Your task to perform on an android device: toggle pop-ups in chrome Image 0: 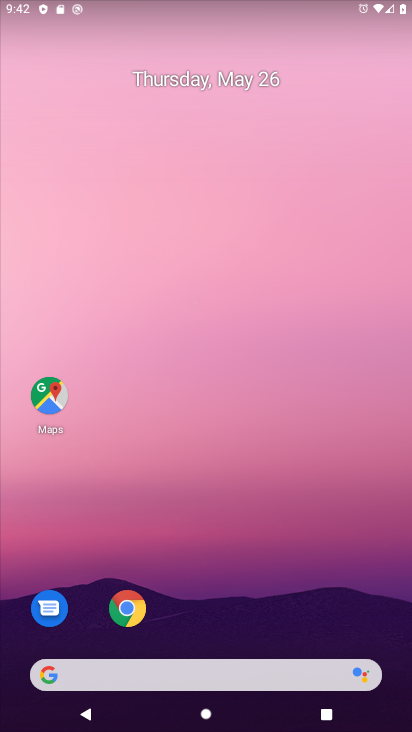
Step 0: click (134, 606)
Your task to perform on an android device: toggle pop-ups in chrome Image 1: 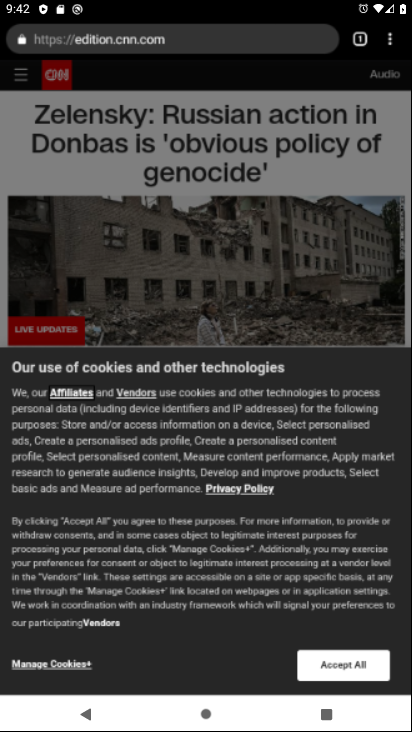
Step 1: click (393, 42)
Your task to perform on an android device: toggle pop-ups in chrome Image 2: 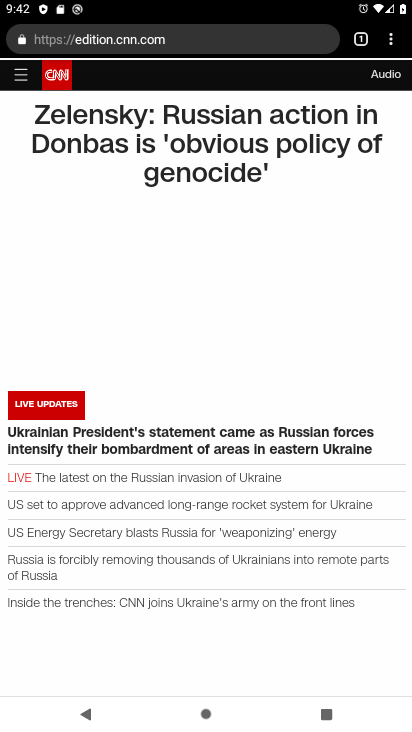
Step 2: click (388, 38)
Your task to perform on an android device: toggle pop-ups in chrome Image 3: 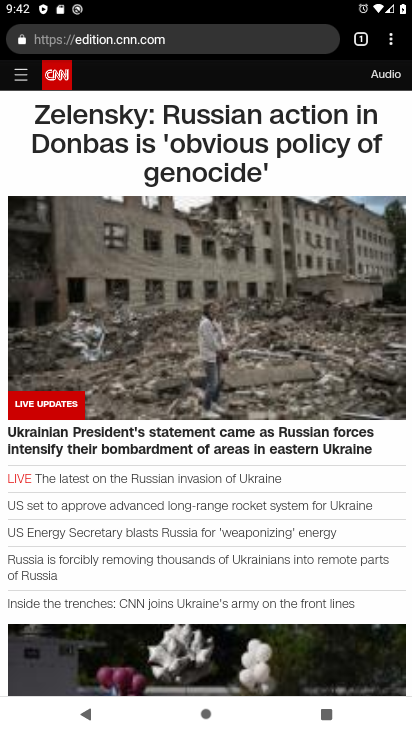
Step 3: click (389, 36)
Your task to perform on an android device: toggle pop-ups in chrome Image 4: 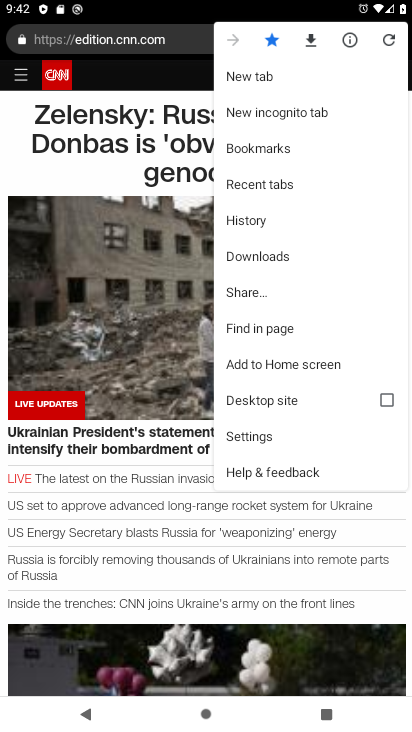
Step 4: click (257, 429)
Your task to perform on an android device: toggle pop-ups in chrome Image 5: 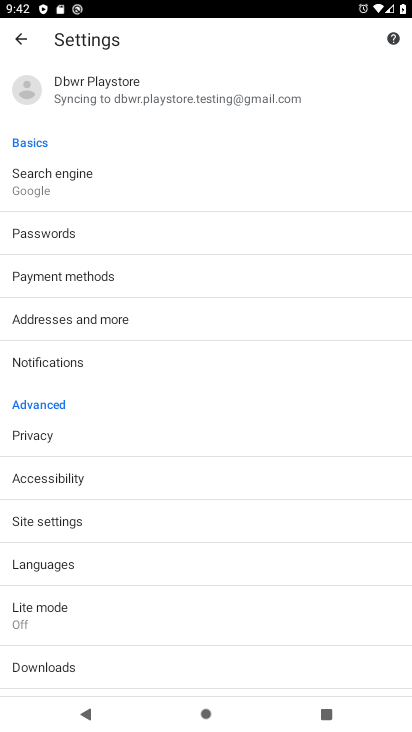
Step 5: click (95, 527)
Your task to perform on an android device: toggle pop-ups in chrome Image 6: 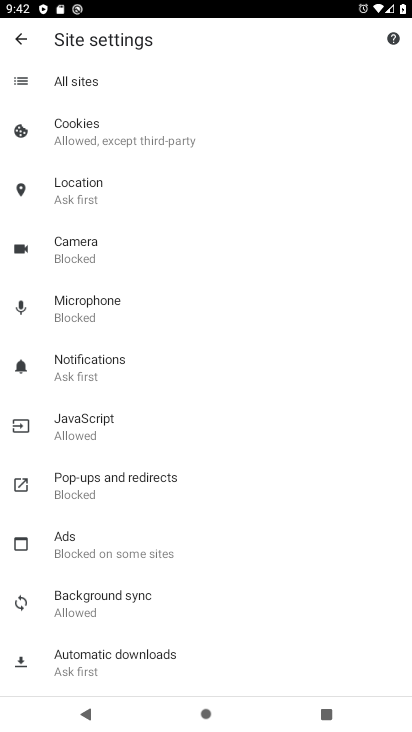
Step 6: click (140, 491)
Your task to perform on an android device: toggle pop-ups in chrome Image 7: 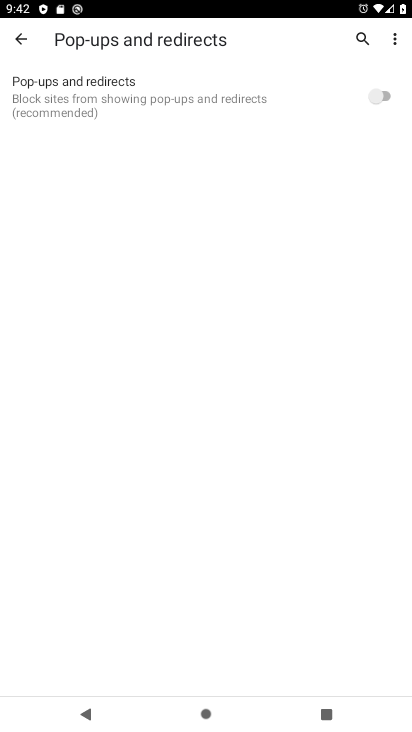
Step 7: click (391, 95)
Your task to perform on an android device: toggle pop-ups in chrome Image 8: 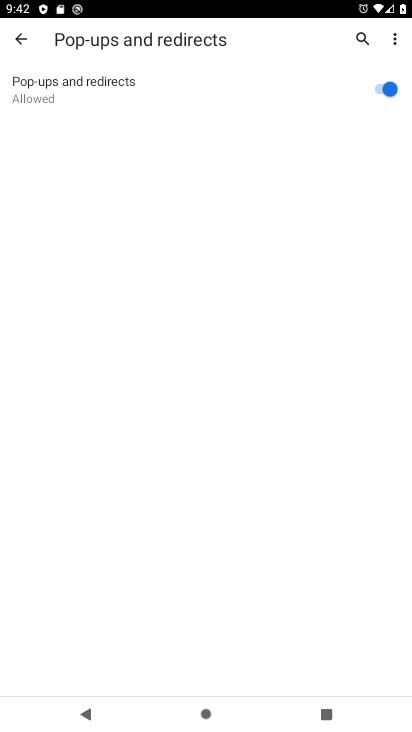
Step 8: task complete